Your task to perform on an android device: turn off picture-in-picture Image 0: 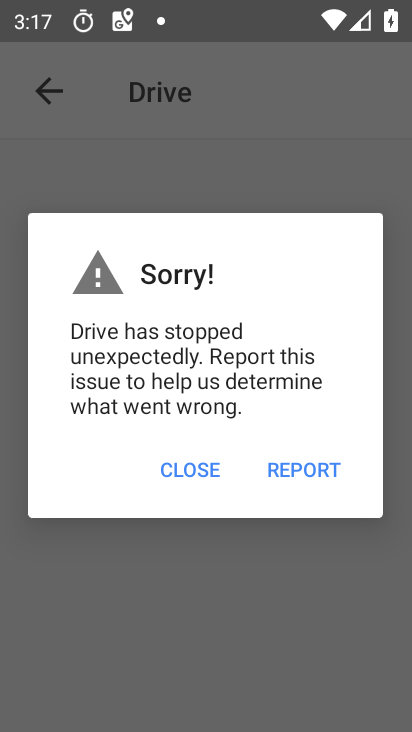
Step 0: press home button
Your task to perform on an android device: turn off picture-in-picture Image 1: 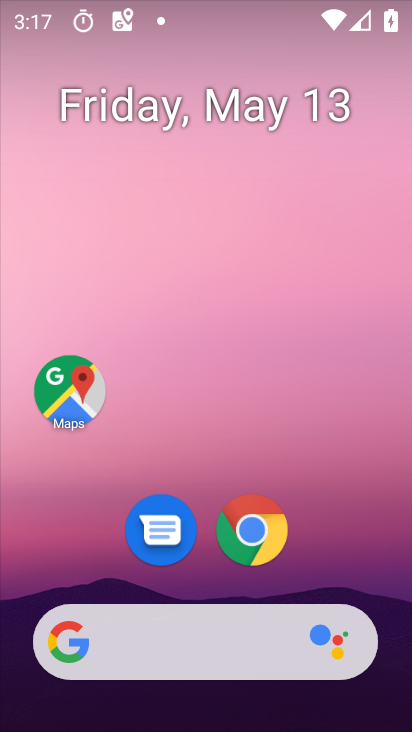
Step 1: click (266, 527)
Your task to perform on an android device: turn off picture-in-picture Image 2: 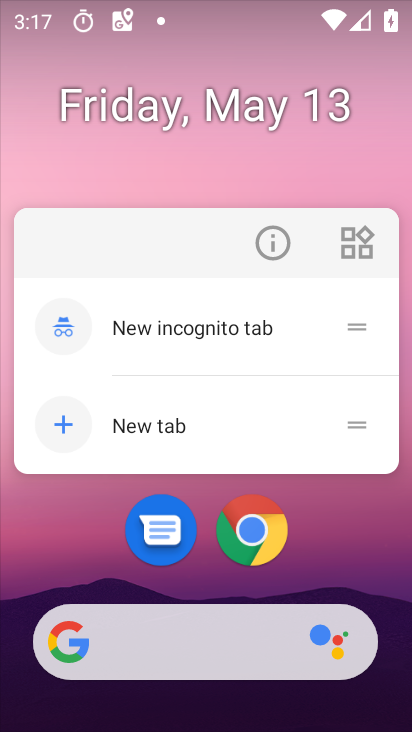
Step 2: click (287, 252)
Your task to perform on an android device: turn off picture-in-picture Image 3: 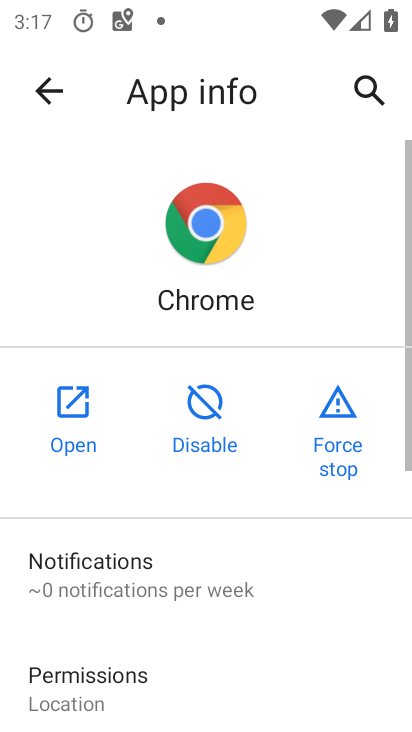
Step 3: drag from (308, 592) to (266, 34)
Your task to perform on an android device: turn off picture-in-picture Image 4: 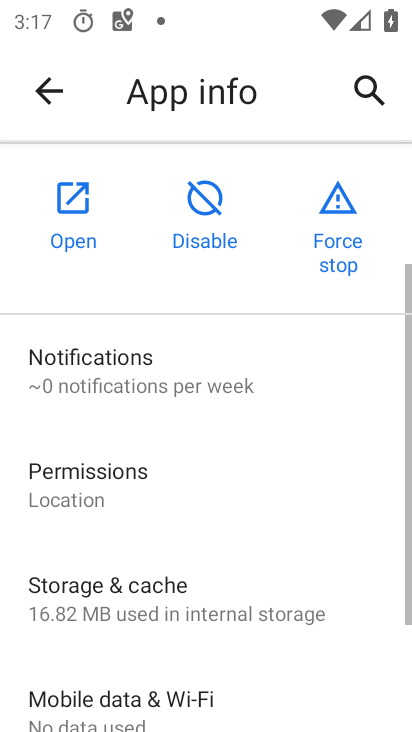
Step 4: drag from (233, 579) to (245, 142)
Your task to perform on an android device: turn off picture-in-picture Image 5: 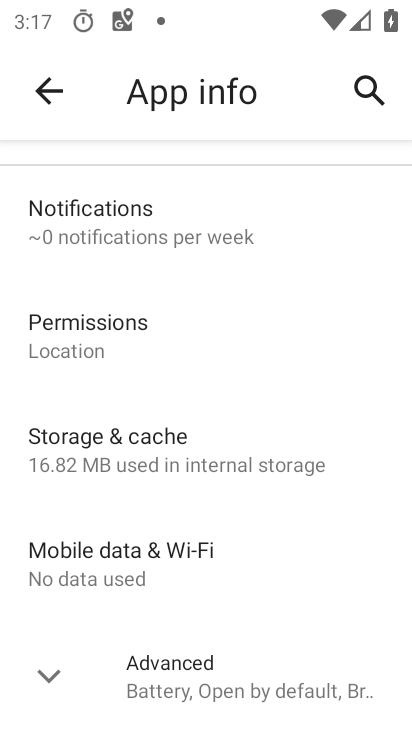
Step 5: click (209, 670)
Your task to perform on an android device: turn off picture-in-picture Image 6: 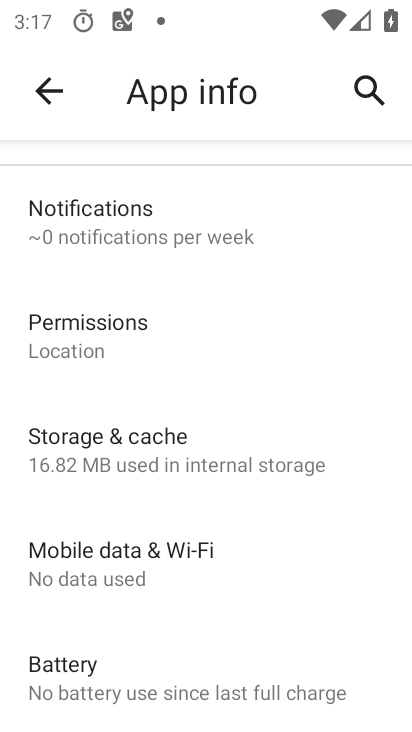
Step 6: drag from (159, 591) to (259, 134)
Your task to perform on an android device: turn off picture-in-picture Image 7: 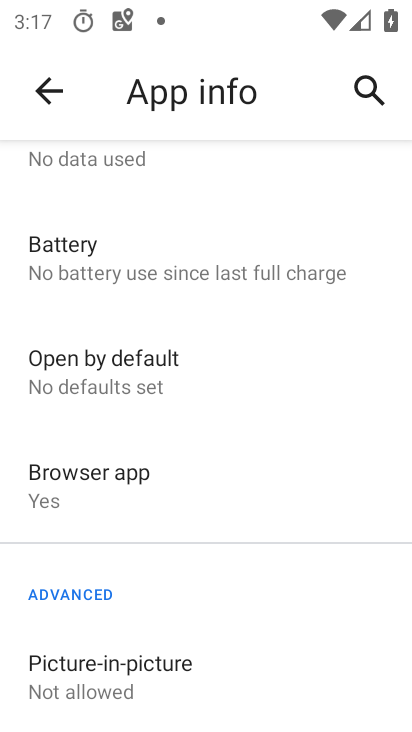
Step 7: click (52, 664)
Your task to perform on an android device: turn off picture-in-picture Image 8: 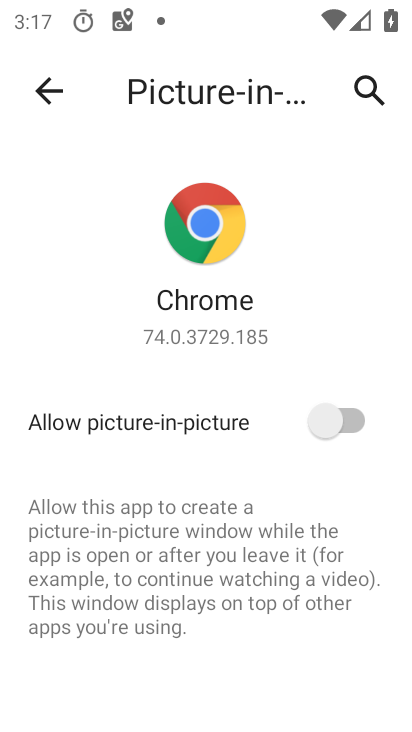
Step 8: task complete